Your task to perform on an android device: Is it going to rain this weekend? Image 0: 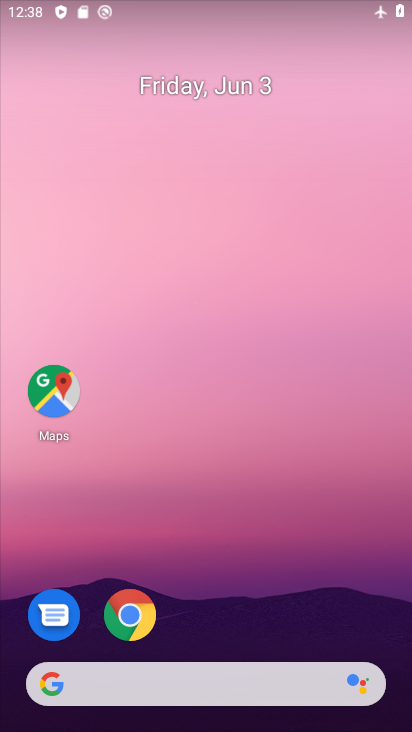
Step 0: drag from (230, 628) to (245, 91)
Your task to perform on an android device: Is it going to rain this weekend? Image 1: 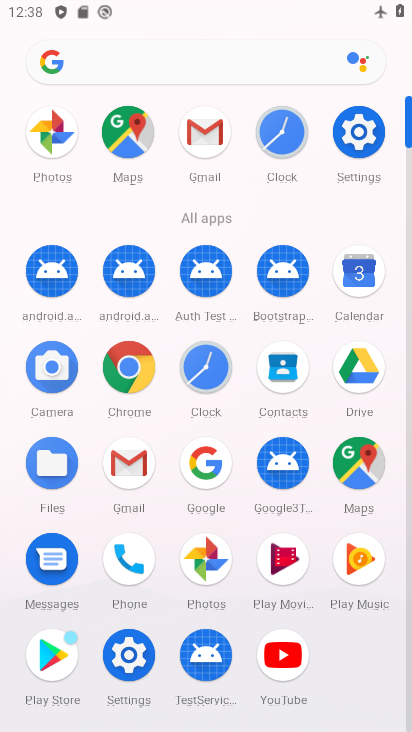
Step 1: click (201, 59)
Your task to perform on an android device: Is it going to rain this weekend? Image 2: 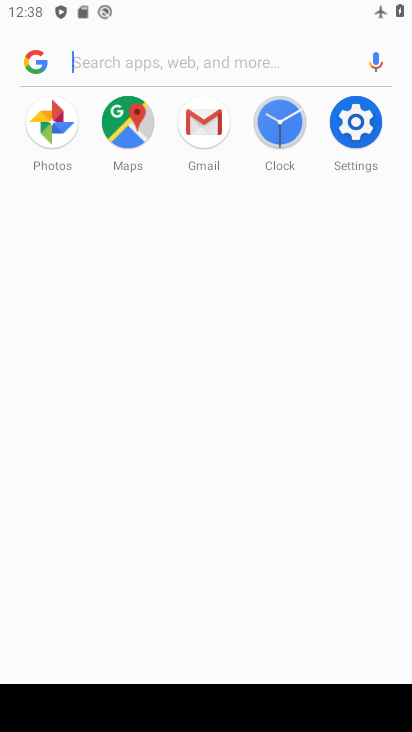
Step 2: type "weather"
Your task to perform on an android device: Is it going to rain this weekend? Image 3: 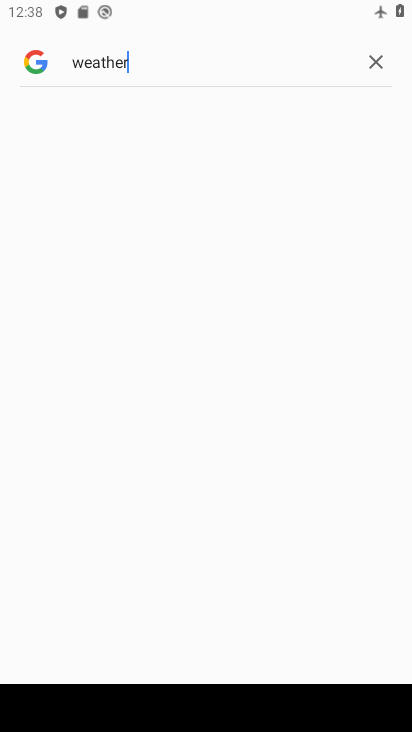
Step 3: click (161, 160)
Your task to perform on an android device: Is it going to rain this weekend? Image 4: 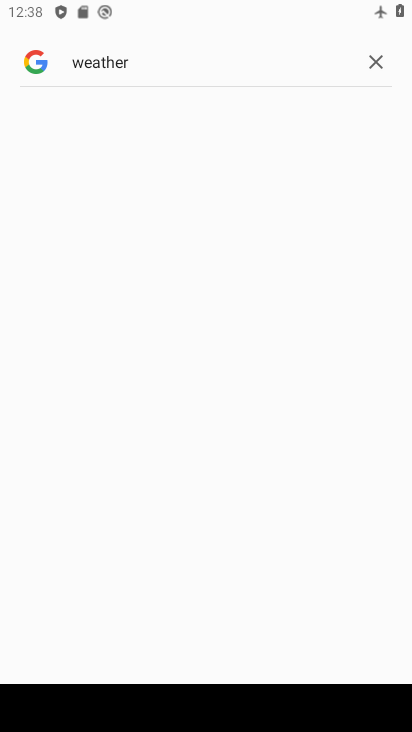
Step 4: click (161, 160)
Your task to perform on an android device: Is it going to rain this weekend? Image 5: 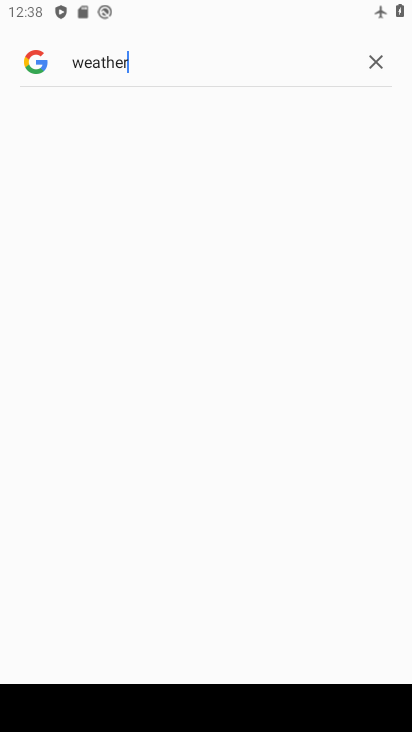
Step 5: click (186, 373)
Your task to perform on an android device: Is it going to rain this weekend? Image 6: 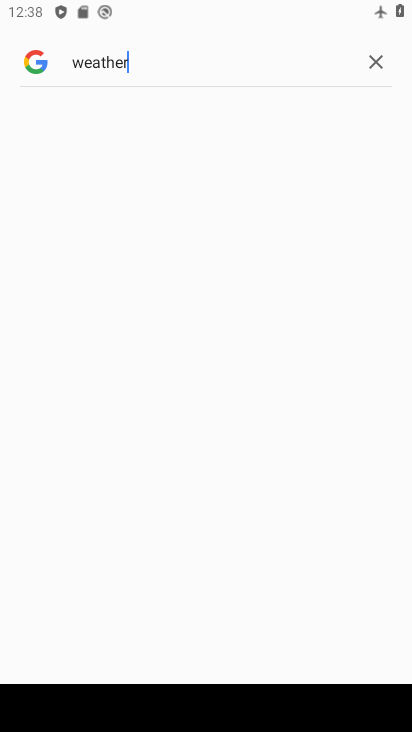
Step 6: task complete